Your task to perform on an android device: change notifications settings Image 0: 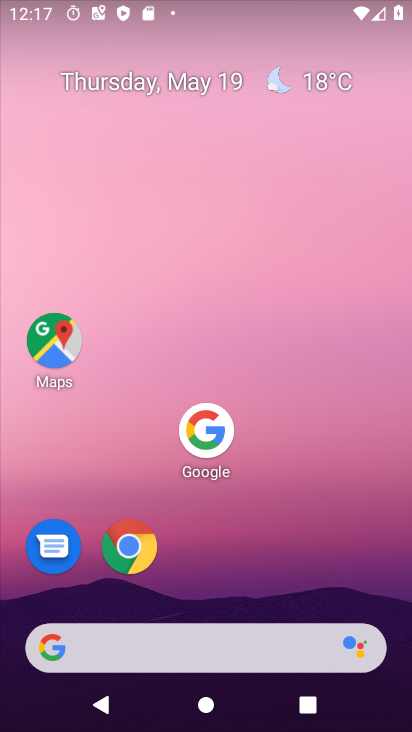
Step 0: drag from (311, 565) to (263, 3)
Your task to perform on an android device: change notifications settings Image 1: 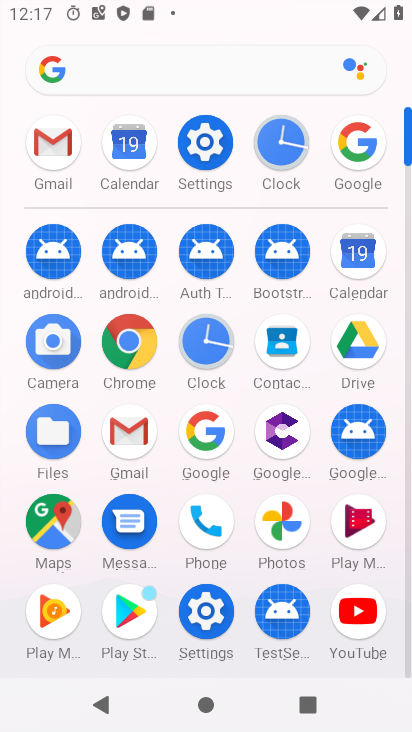
Step 1: click (211, 137)
Your task to perform on an android device: change notifications settings Image 2: 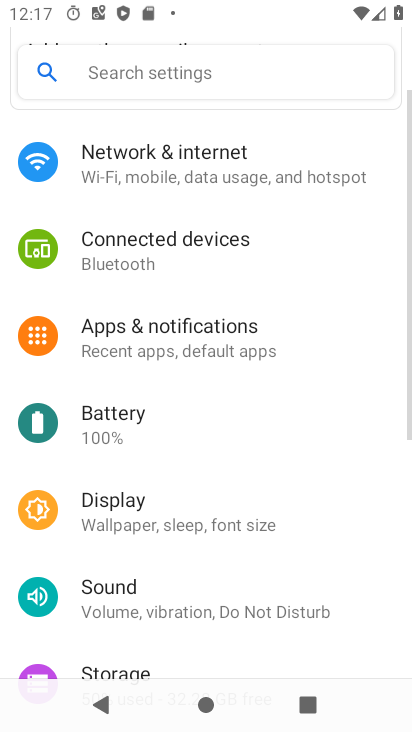
Step 2: click (216, 333)
Your task to perform on an android device: change notifications settings Image 3: 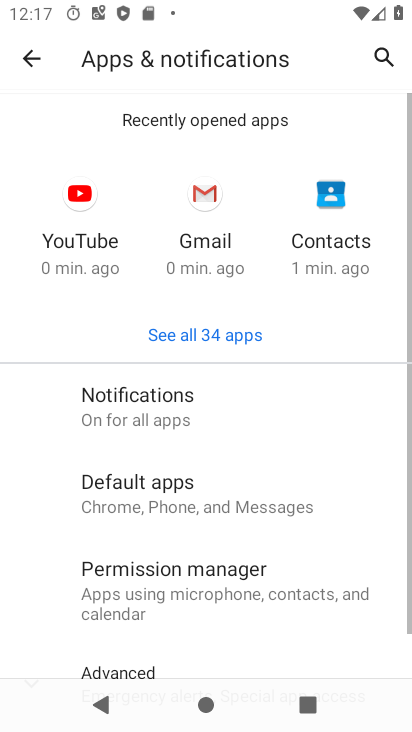
Step 3: click (155, 420)
Your task to perform on an android device: change notifications settings Image 4: 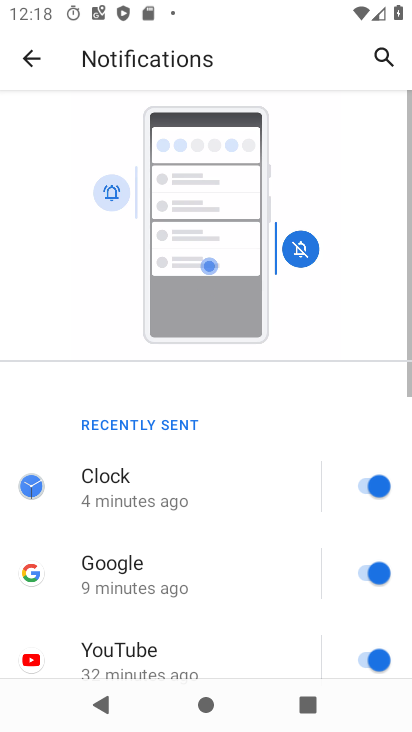
Step 4: drag from (218, 534) to (233, 24)
Your task to perform on an android device: change notifications settings Image 5: 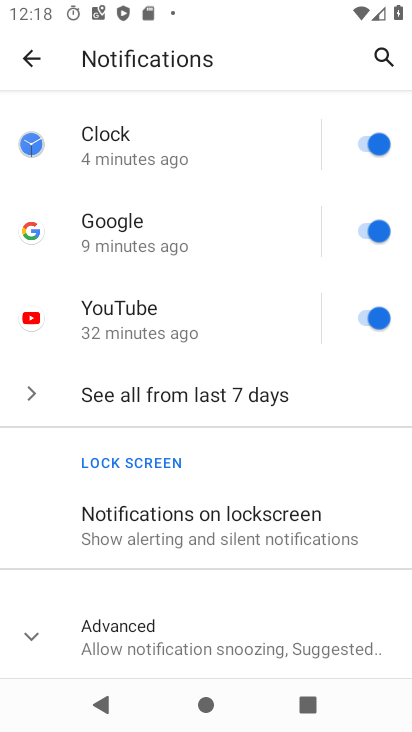
Step 5: click (153, 639)
Your task to perform on an android device: change notifications settings Image 6: 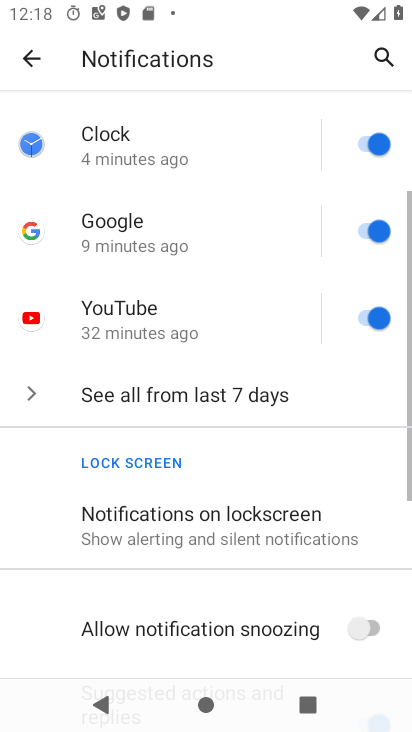
Step 6: drag from (282, 613) to (280, 249)
Your task to perform on an android device: change notifications settings Image 7: 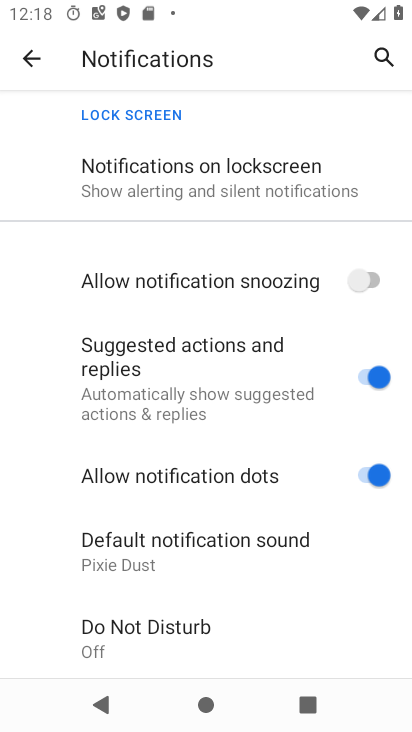
Step 7: click (359, 293)
Your task to perform on an android device: change notifications settings Image 8: 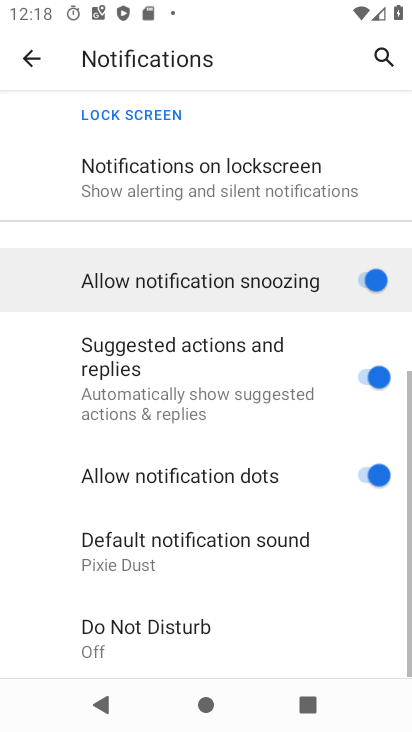
Step 8: click (384, 384)
Your task to perform on an android device: change notifications settings Image 9: 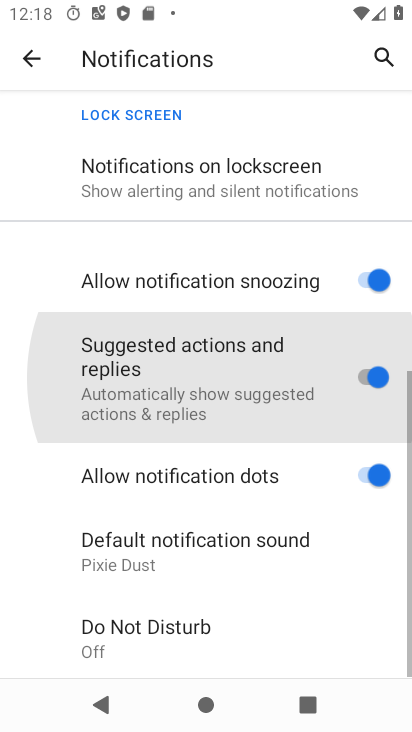
Step 9: click (389, 457)
Your task to perform on an android device: change notifications settings Image 10: 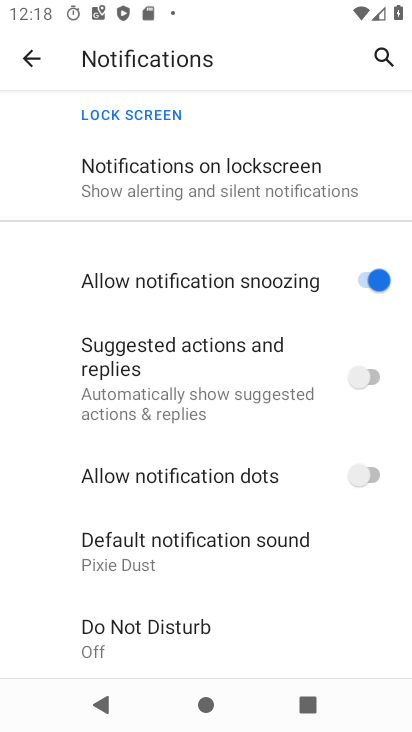
Step 10: task complete